Your task to perform on an android device: open a bookmark in the chrome app Image 0: 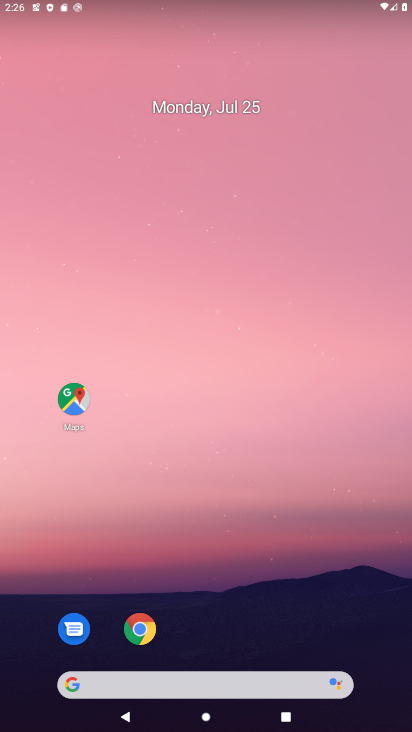
Step 0: click (139, 624)
Your task to perform on an android device: open a bookmark in the chrome app Image 1: 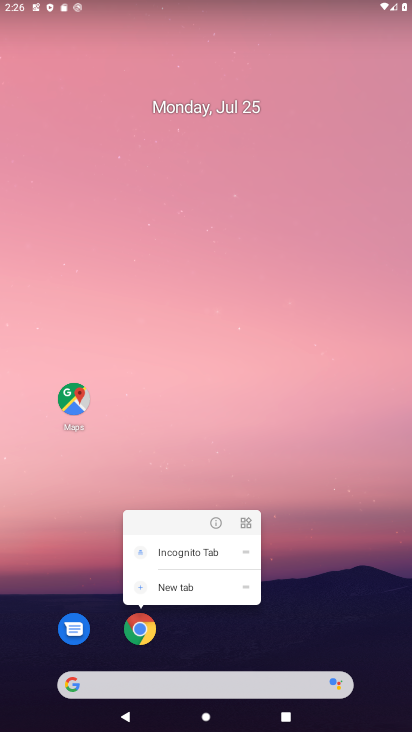
Step 1: click (146, 641)
Your task to perform on an android device: open a bookmark in the chrome app Image 2: 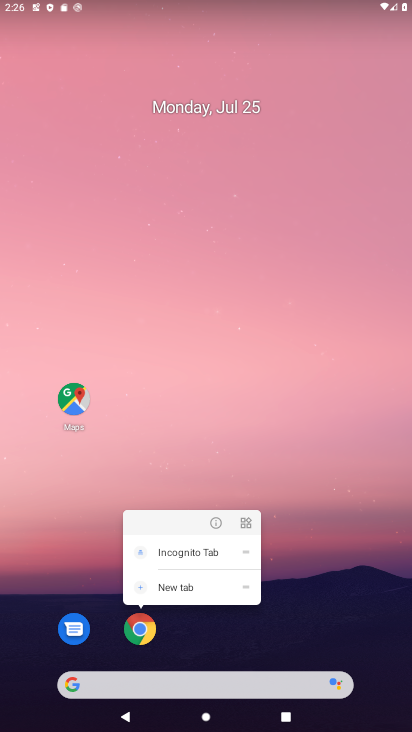
Step 2: click (139, 642)
Your task to perform on an android device: open a bookmark in the chrome app Image 3: 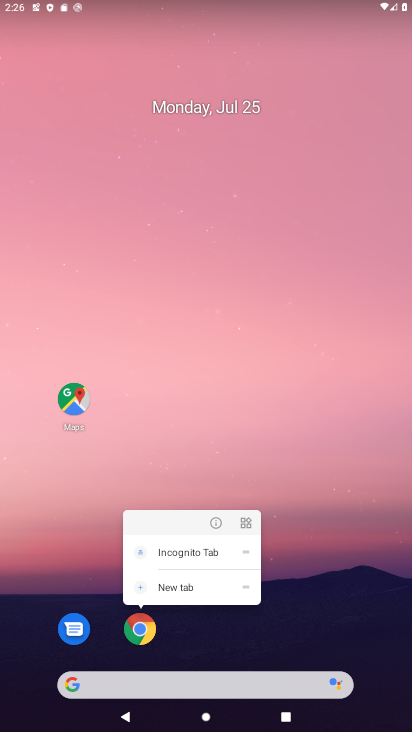
Step 3: click (150, 631)
Your task to perform on an android device: open a bookmark in the chrome app Image 4: 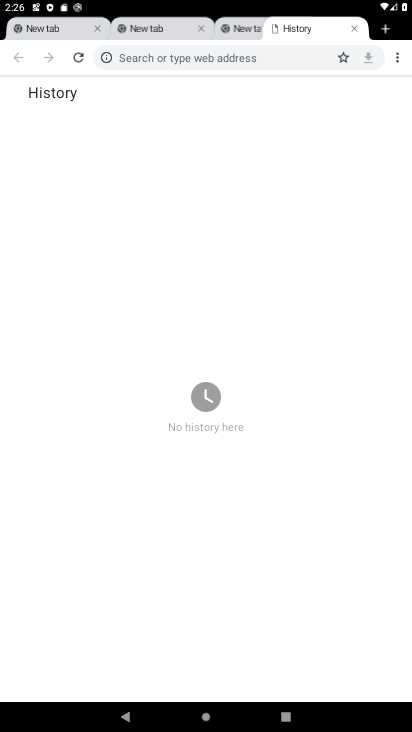
Step 4: click (400, 54)
Your task to perform on an android device: open a bookmark in the chrome app Image 5: 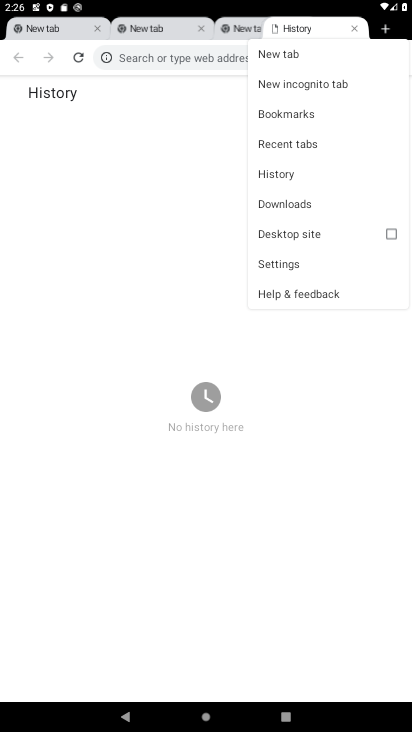
Step 5: click (284, 121)
Your task to perform on an android device: open a bookmark in the chrome app Image 6: 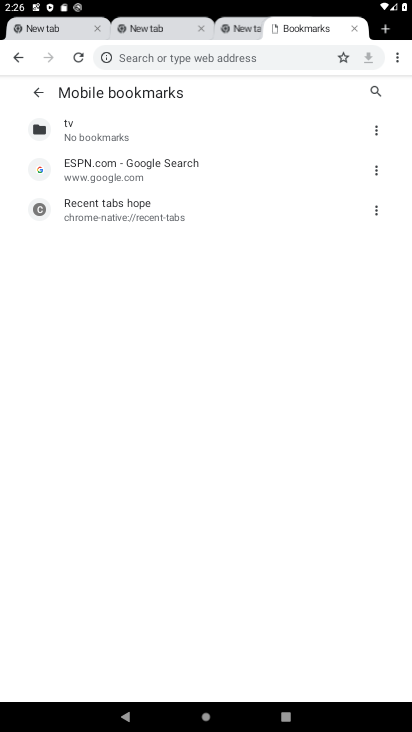
Step 6: task complete